Your task to perform on an android device: Open Google Chrome and open the bookmarks view Image 0: 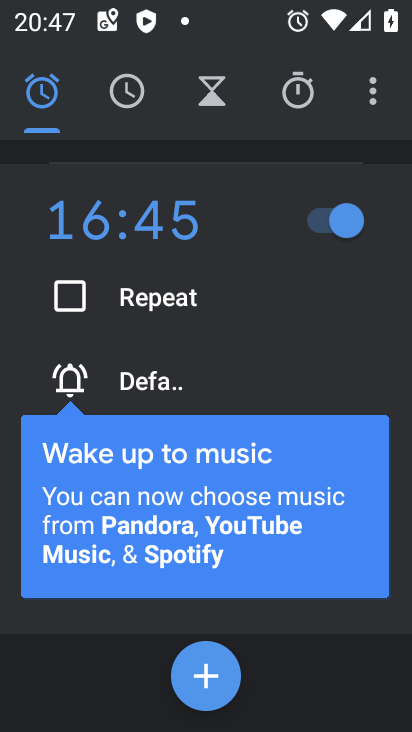
Step 0: press home button
Your task to perform on an android device: Open Google Chrome and open the bookmarks view Image 1: 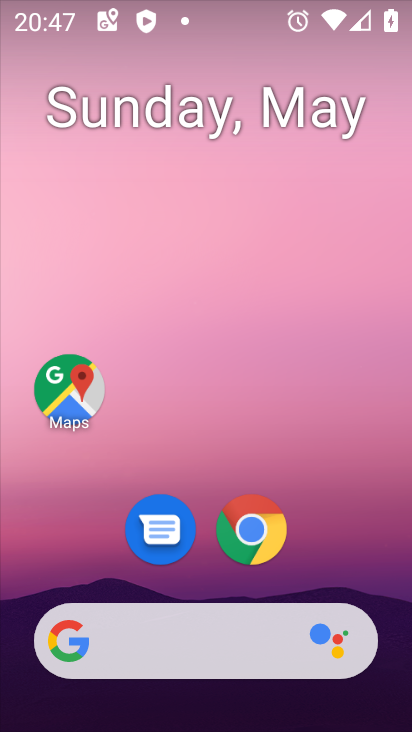
Step 1: click (269, 539)
Your task to perform on an android device: Open Google Chrome and open the bookmarks view Image 2: 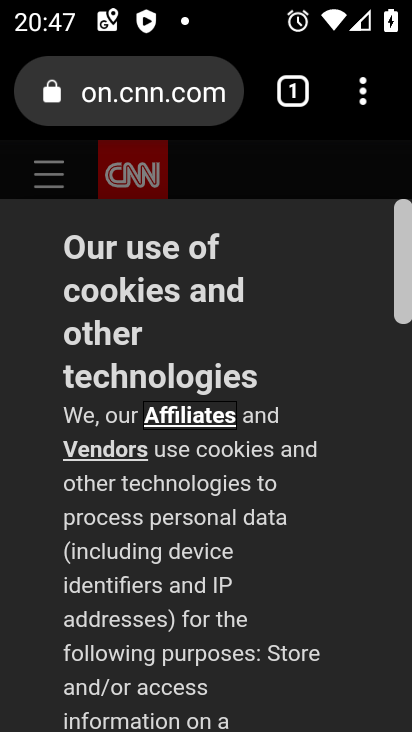
Step 2: click (369, 95)
Your task to perform on an android device: Open Google Chrome and open the bookmarks view Image 3: 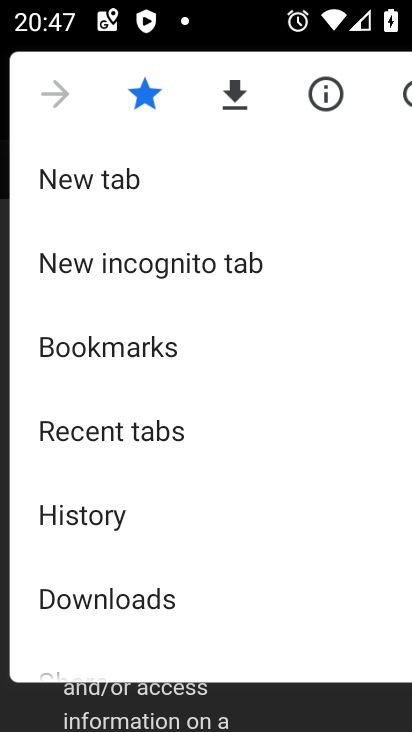
Step 3: click (110, 358)
Your task to perform on an android device: Open Google Chrome and open the bookmarks view Image 4: 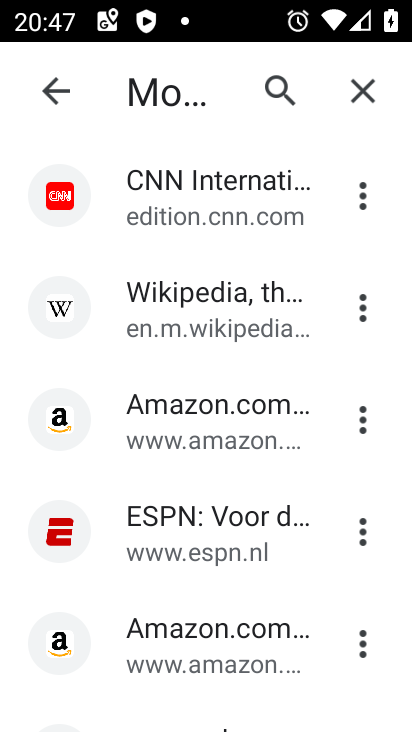
Step 4: task complete